Your task to perform on an android device: Do I have any events tomorrow? Image 0: 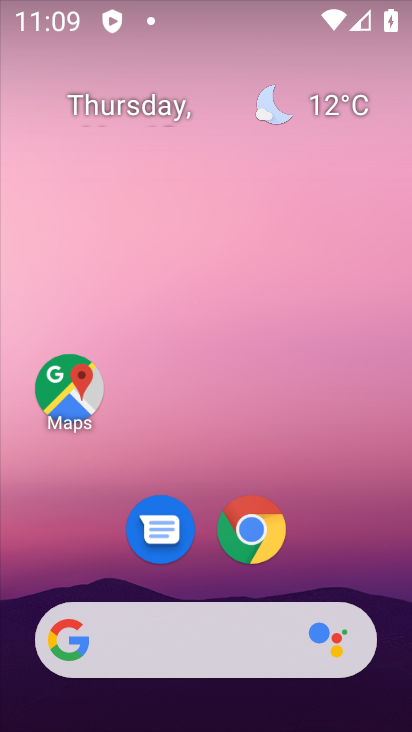
Step 0: drag from (313, 430) to (294, 211)
Your task to perform on an android device: Do I have any events tomorrow? Image 1: 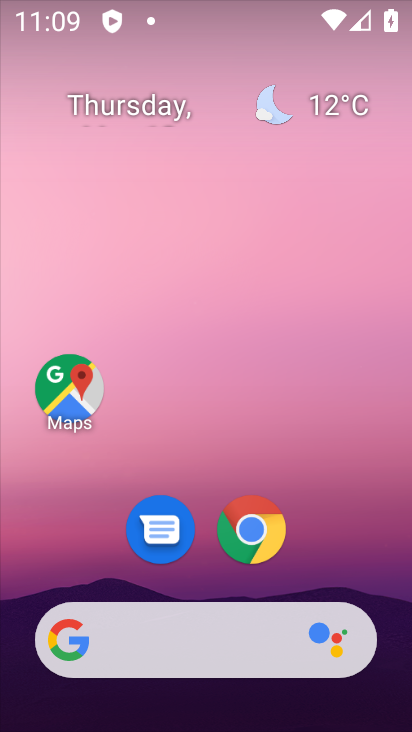
Step 1: drag from (297, 573) to (323, 229)
Your task to perform on an android device: Do I have any events tomorrow? Image 2: 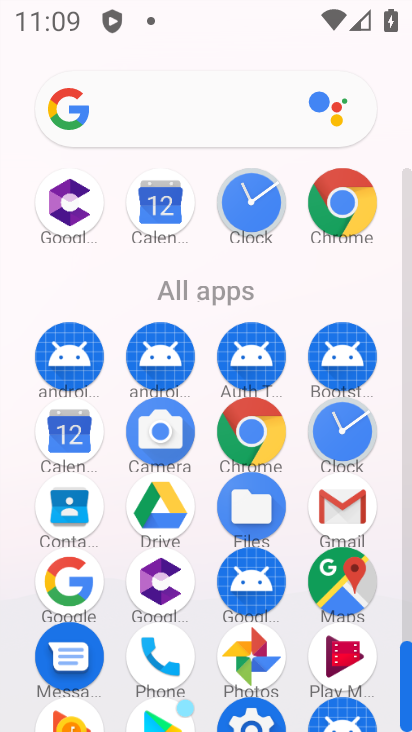
Step 2: click (149, 187)
Your task to perform on an android device: Do I have any events tomorrow? Image 3: 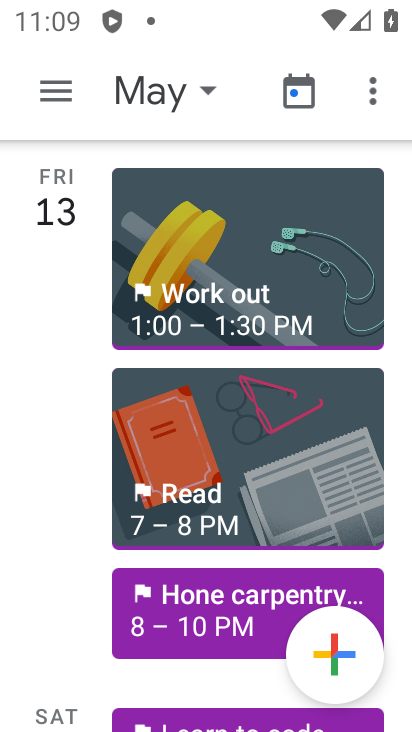
Step 3: click (55, 95)
Your task to perform on an android device: Do I have any events tomorrow? Image 4: 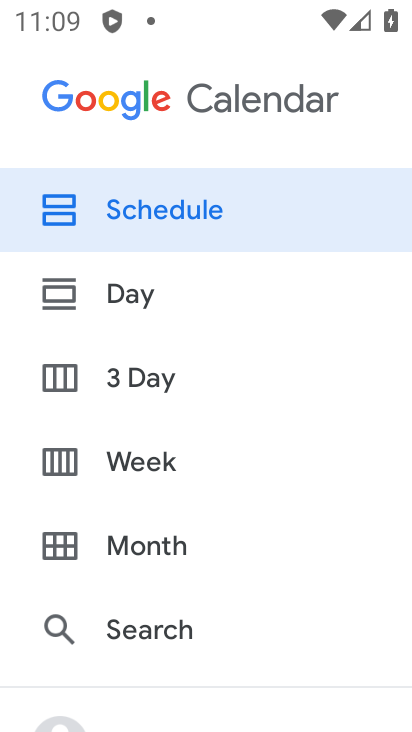
Step 4: click (150, 550)
Your task to perform on an android device: Do I have any events tomorrow? Image 5: 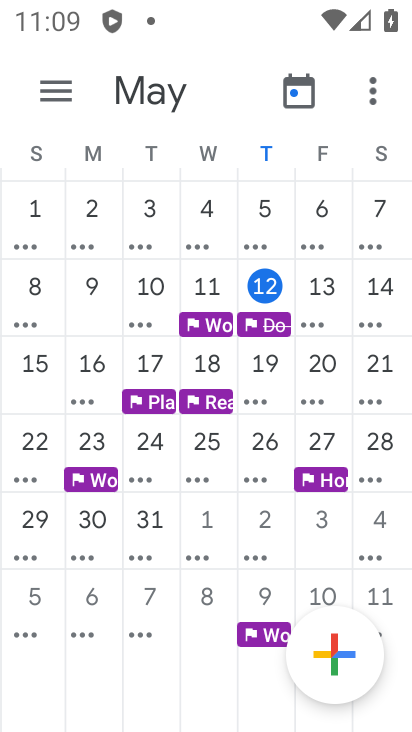
Step 5: click (362, 288)
Your task to perform on an android device: Do I have any events tomorrow? Image 6: 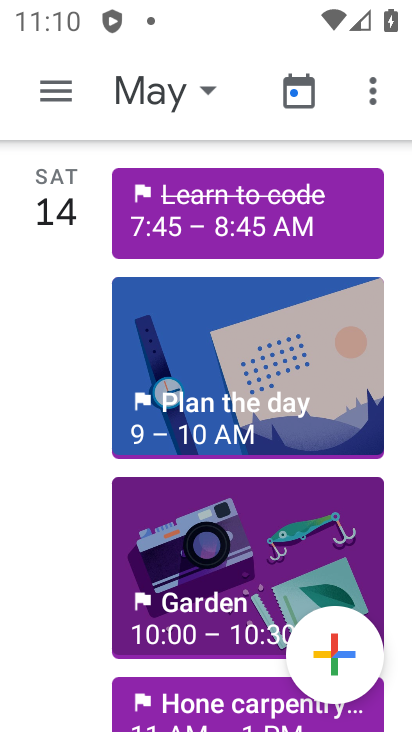
Step 6: task complete